Your task to perform on an android device: read, delete, or share a saved page in the chrome app Image 0: 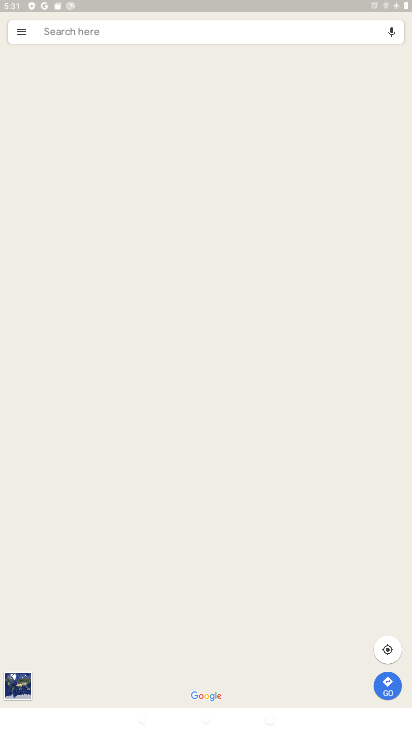
Step 0: press home button
Your task to perform on an android device: read, delete, or share a saved page in the chrome app Image 1: 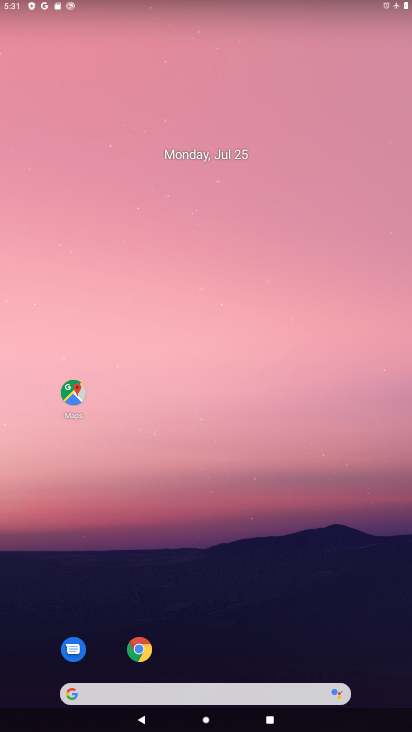
Step 1: drag from (236, 651) to (182, 27)
Your task to perform on an android device: read, delete, or share a saved page in the chrome app Image 2: 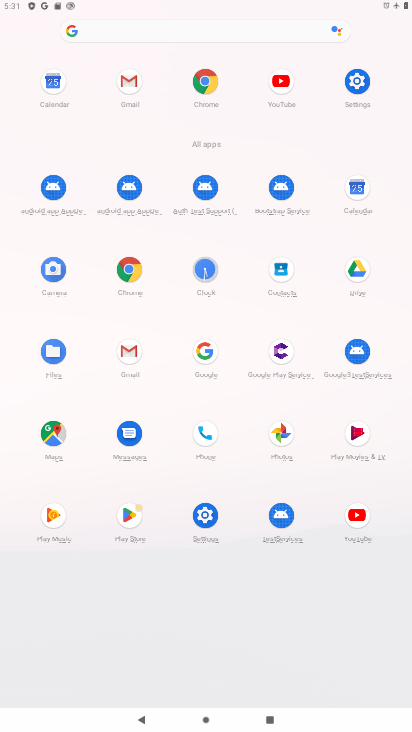
Step 2: click (131, 271)
Your task to perform on an android device: read, delete, or share a saved page in the chrome app Image 3: 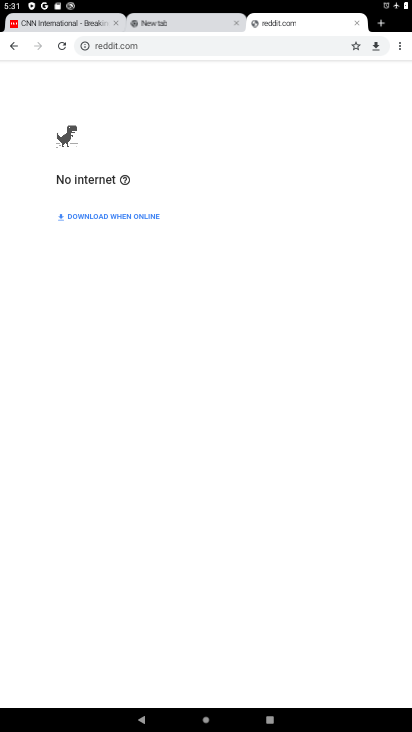
Step 3: drag from (400, 46) to (366, 126)
Your task to perform on an android device: read, delete, or share a saved page in the chrome app Image 4: 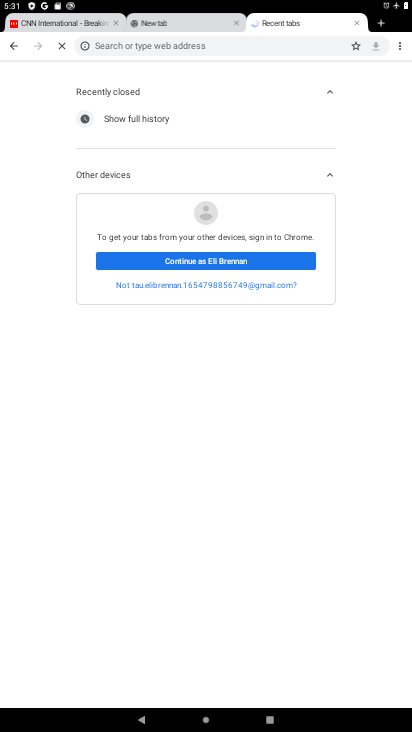
Step 4: click (313, 168)
Your task to perform on an android device: read, delete, or share a saved page in the chrome app Image 5: 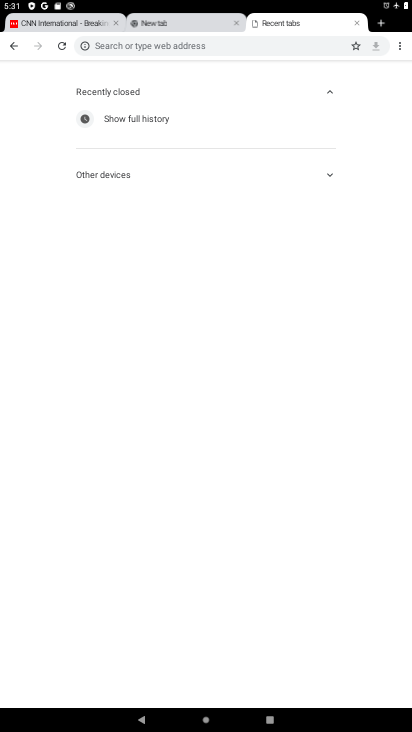
Step 5: task complete